Your task to perform on an android device: turn off data saver in the chrome app Image 0: 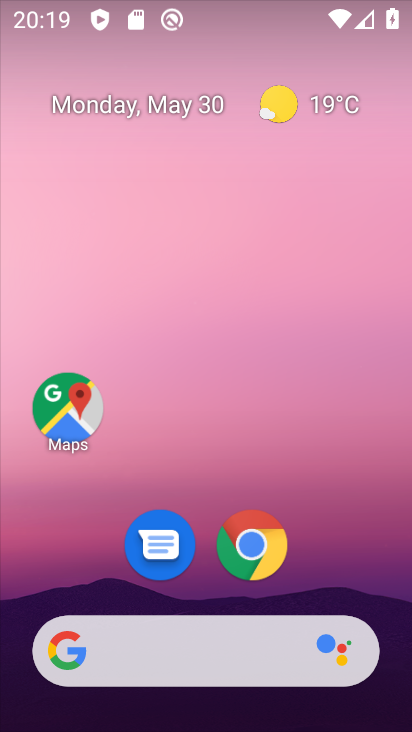
Step 0: click (244, 548)
Your task to perform on an android device: turn off data saver in the chrome app Image 1: 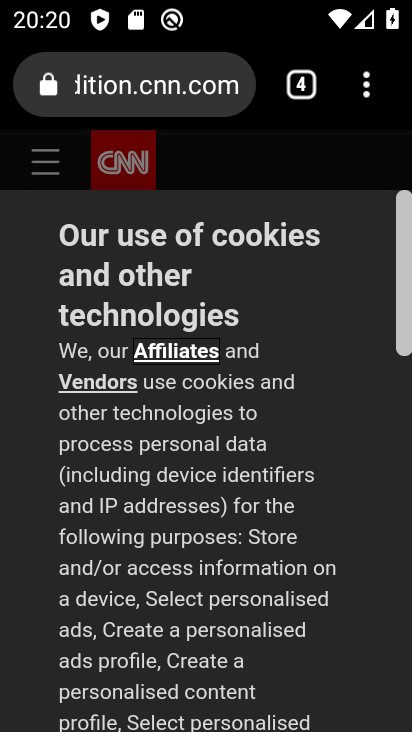
Step 1: click (362, 91)
Your task to perform on an android device: turn off data saver in the chrome app Image 2: 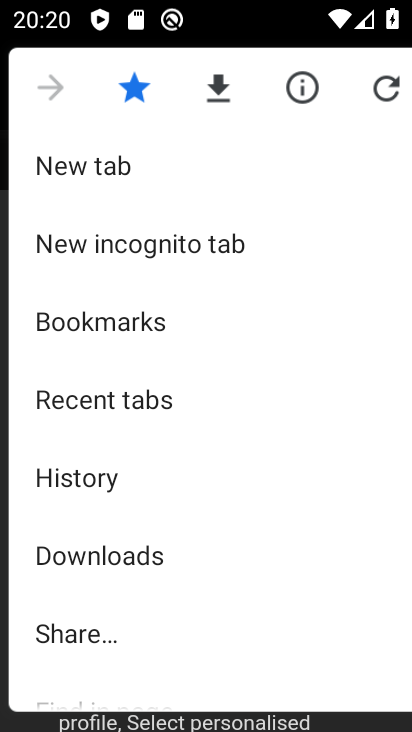
Step 2: drag from (213, 602) to (225, 266)
Your task to perform on an android device: turn off data saver in the chrome app Image 3: 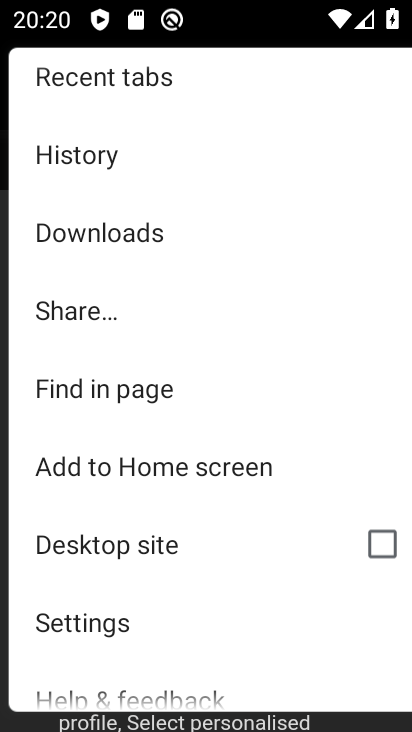
Step 3: click (111, 627)
Your task to perform on an android device: turn off data saver in the chrome app Image 4: 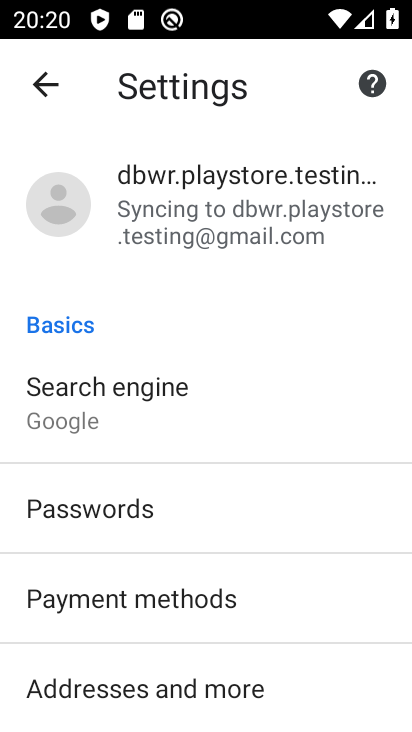
Step 4: drag from (241, 669) to (224, 339)
Your task to perform on an android device: turn off data saver in the chrome app Image 5: 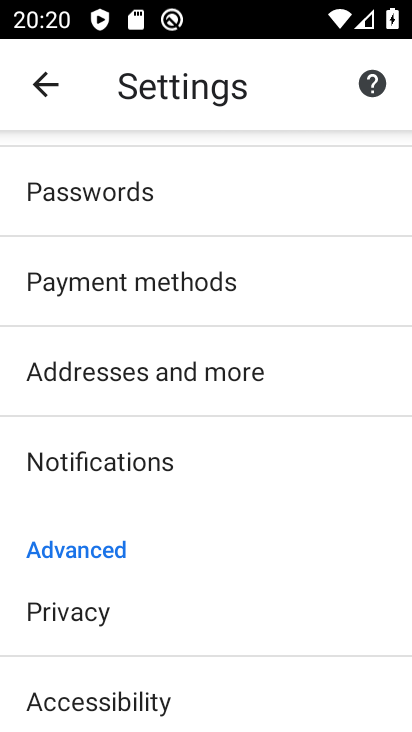
Step 5: drag from (171, 607) to (170, 306)
Your task to perform on an android device: turn off data saver in the chrome app Image 6: 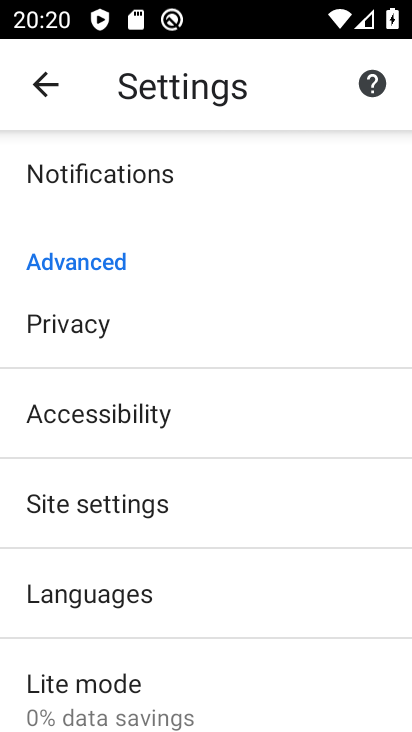
Step 6: click (159, 701)
Your task to perform on an android device: turn off data saver in the chrome app Image 7: 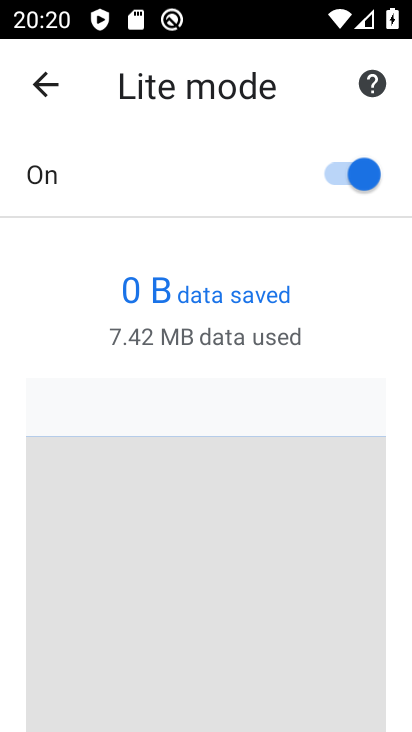
Step 7: click (330, 165)
Your task to perform on an android device: turn off data saver in the chrome app Image 8: 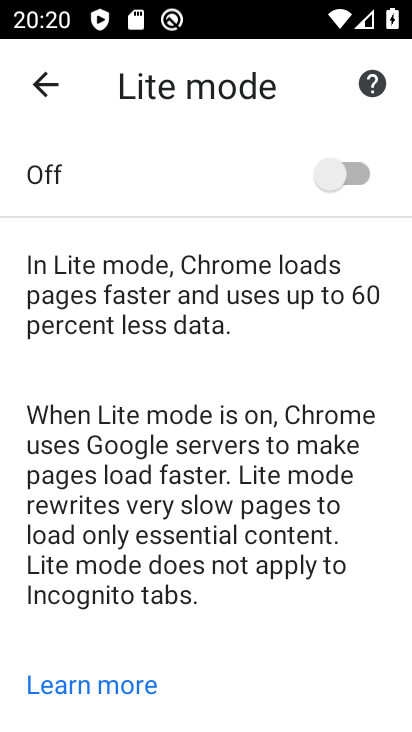
Step 8: task complete